Your task to perform on an android device: turn off data saver in the chrome app Image 0: 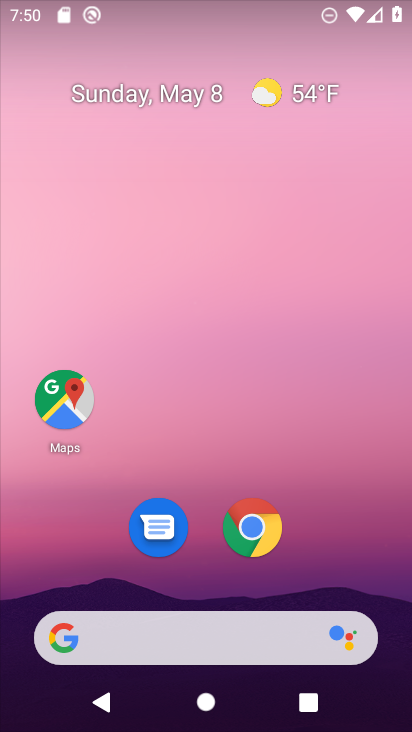
Step 0: drag from (298, 577) to (345, 127)
Your task to perform on an android device: turn off data saver in the chrome app Image 1: 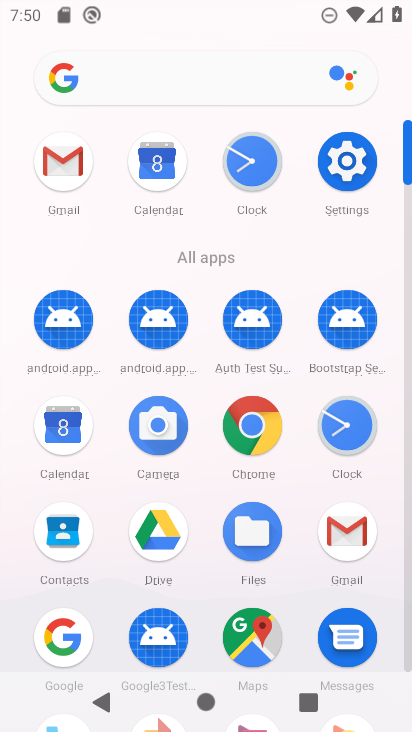
Step 1: click (253, 433)
Your task to perform on an android device: turn off data saver in the chrome app Image 2: 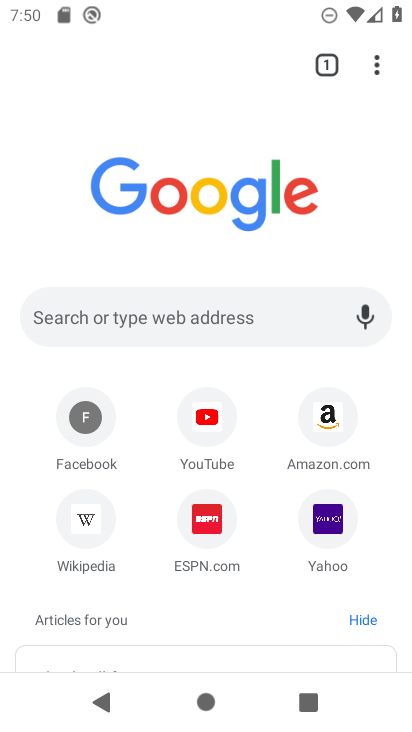
Step 2: drag from (381, 57) to (201, 537)
Your task to perform on an android device: turn off data saver in the chrome app Image 3: 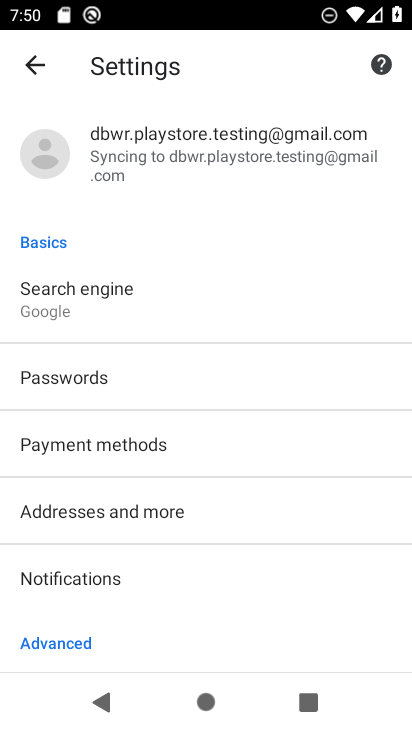
Step 3: drag from (187, 551) to (386, 128)
Your task to perform on an android device: turn off data saver in the chrome app Image 4: 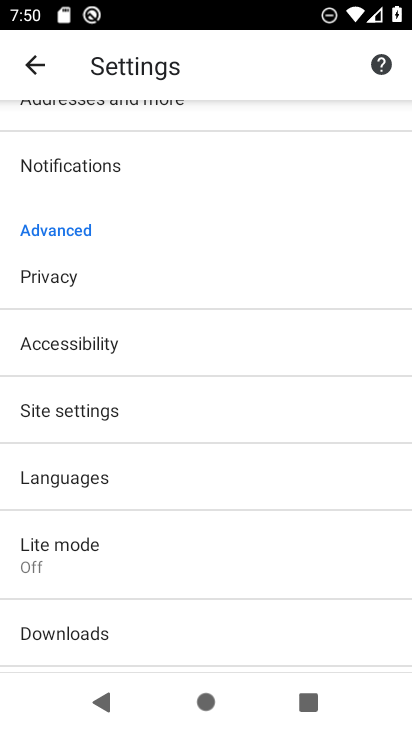
Step 4: click (134, 551)
Your task to perform on an android device: turn off data saver in the chrome app Image 5: 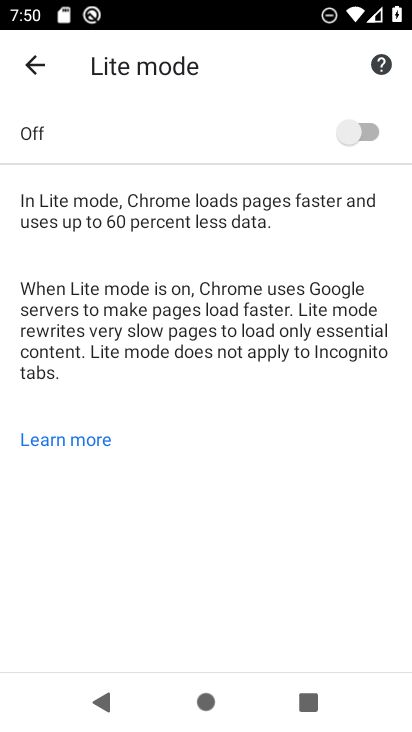
Step 5: task complete